Your task to perform on an android device: Open sound settings Image 0: 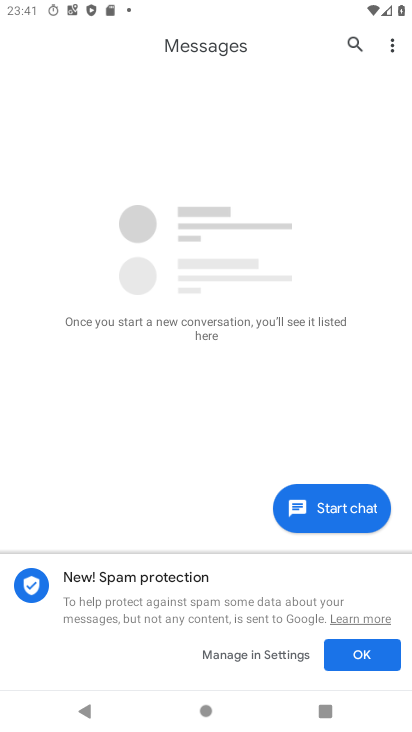
Step 0: press home button
Your task to perform on an android device: Open sound settings Image 1: 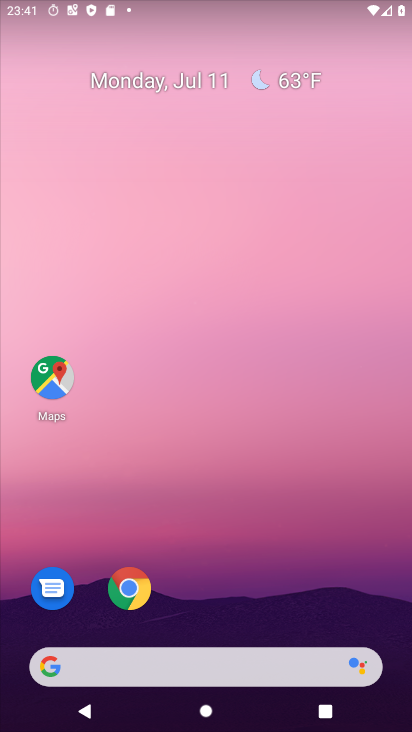
Step 1: drag from (249, 711) to (221, 98)
Your task to perform on an android device: Open sound settings Image 2: 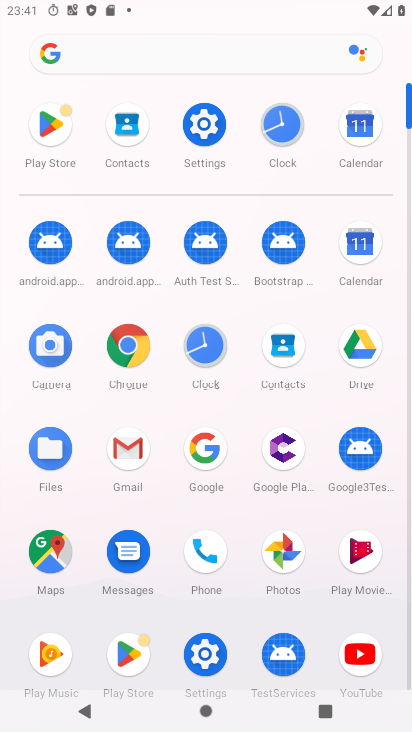
Step 2: click (214, 124)
Your task to perform on an android device: Open sound settings Image 3: 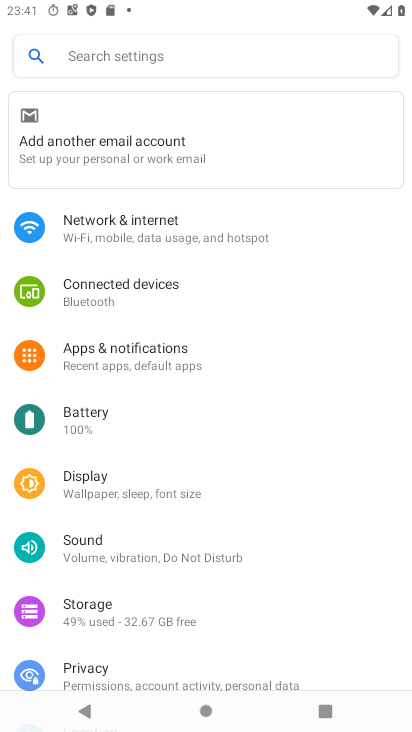
Step 3: click (85, 544)
Your task to perform on an android device: Open sound settings Image 4: 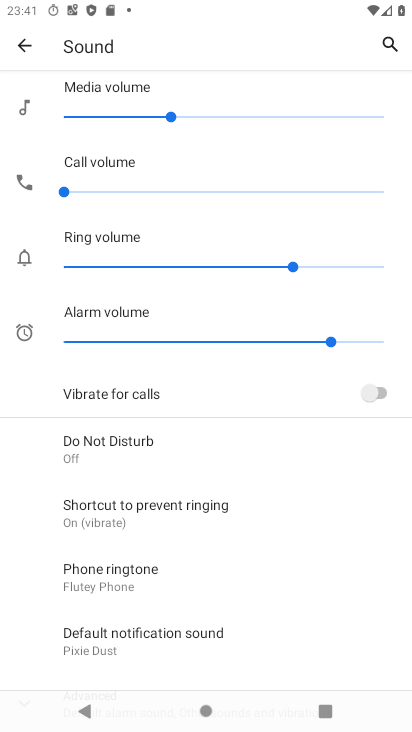
Step 4: task complete